Your task to perform on an android device: turn on wifi Image 0: 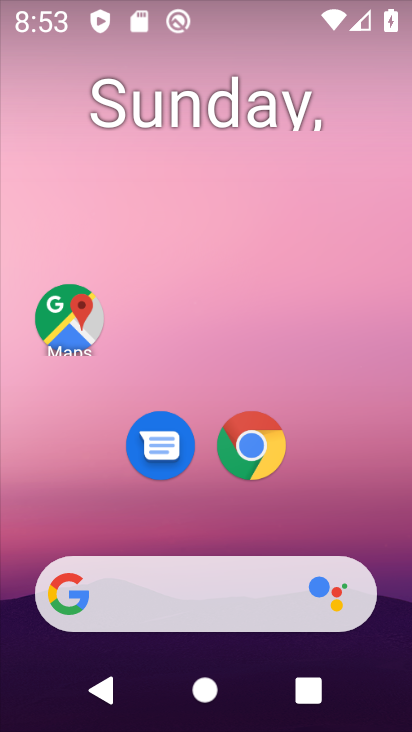
Step 0: drag from (218, 0) to (264, 540)
Your task to perform on an android device: turn on wifi Image 1: 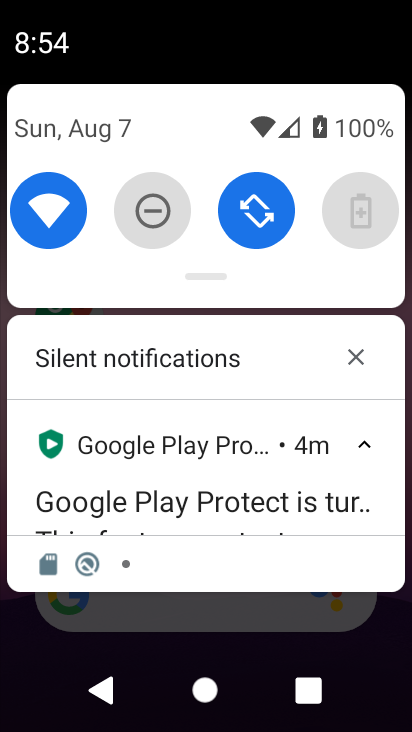
Step 1: task complete